Your task to perform on an android device: see creations saved in the google photos Image 0: 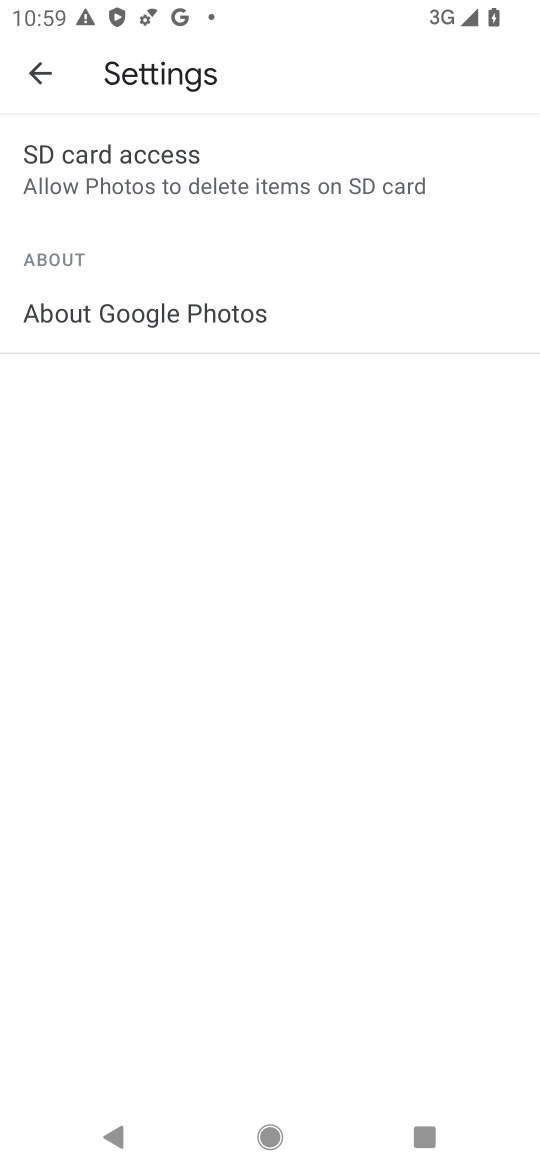
Step 0: task complete